Your task to perform on an android device: allow cookies in the chrome app Image 0: 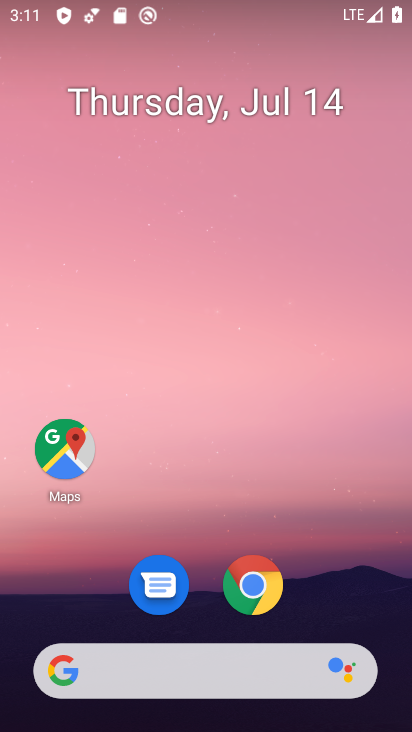
Step 0: click (258, 586)
Your task to perform on an android device: allow cookies in the chrome app Image 1: 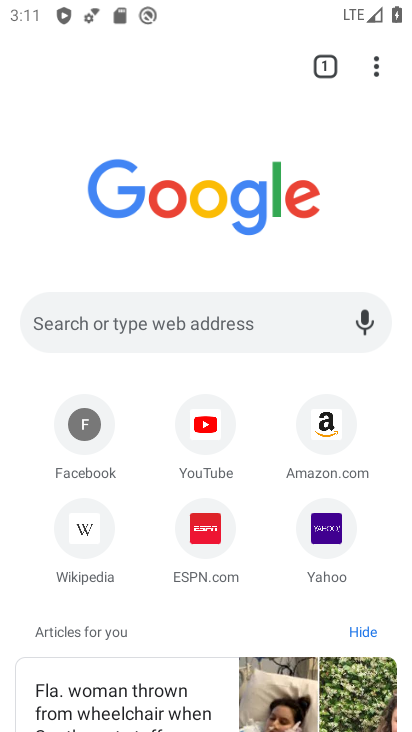
Step 1: click (374, 72)
Your task to perform on an android device: allow cookies in the chrome app Image 2: 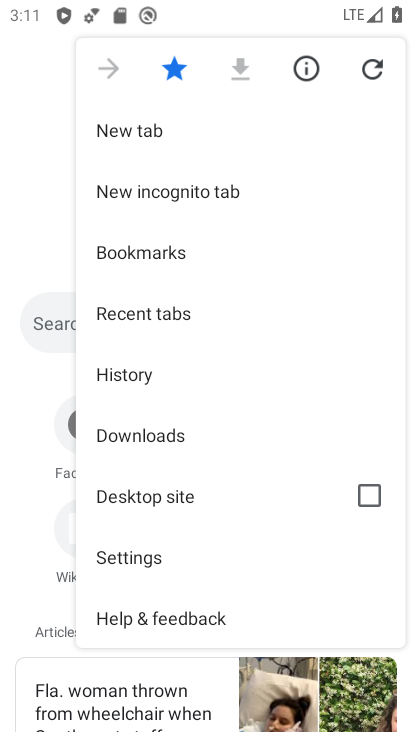
Step 2: click (157, 553)
Your task to perform on an android device: allow cookies in the chrome app Image 3: 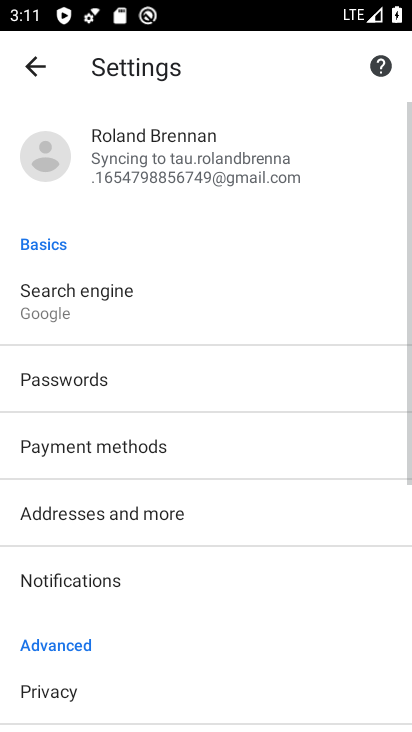
Step 3: drag from (188, 564) to (203, 284)
Your task to perform on an android device: allow cookies in the chrome app Image 4: 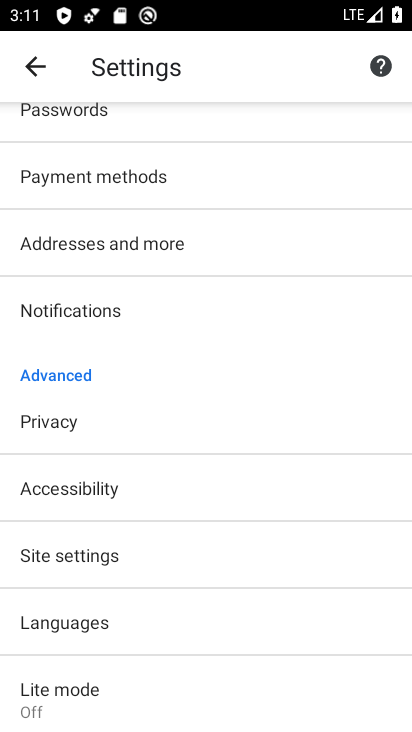
Step 4: click (95, 544)
Your task to perform on an android device: allow cookies in the chrome app Image 5: 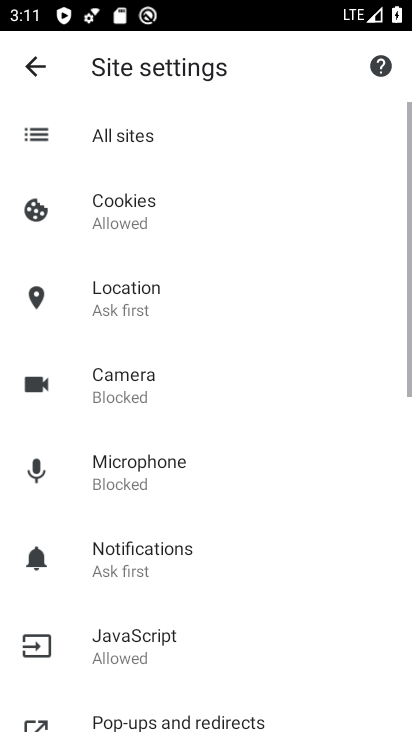
Step 5: click (156, 205)
Your task to perform on an android device: allow cookies in the chrome app Image 6: 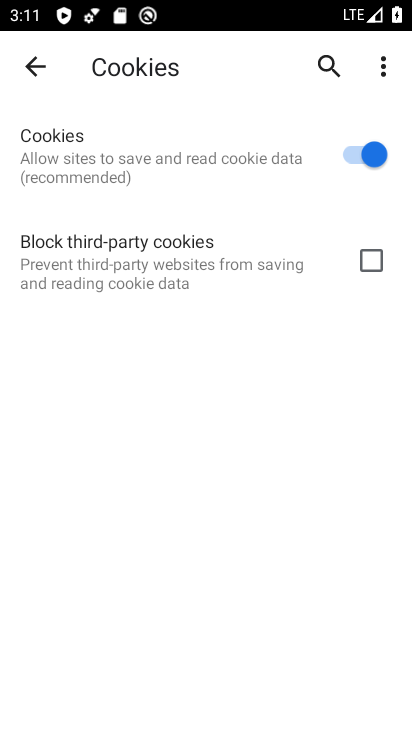
Step 6: task complete